Your task to perform on an android device: Go to internet settings Image 0: 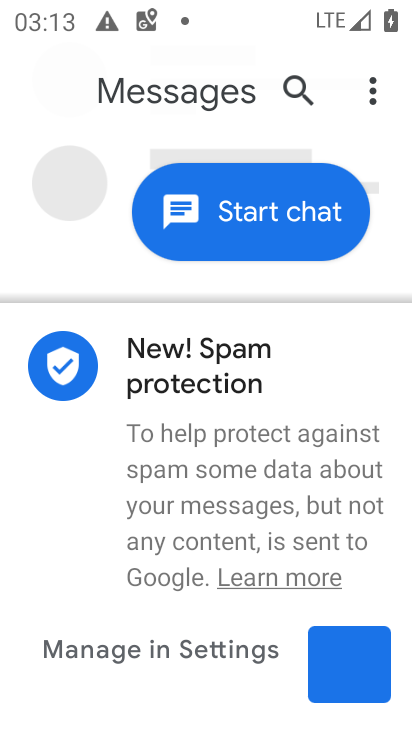
Step 0: press home button
Your task to perform on an android device: Go to internet settings Image 1: 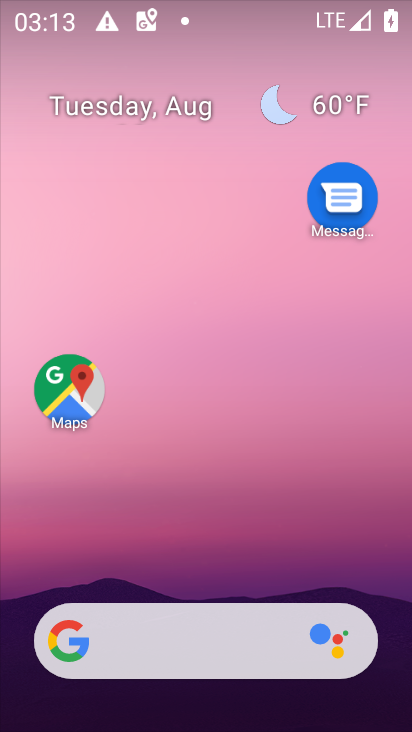
Step 1: drag from (221, 592) to (227, 6)
Your task to perform on an android device: Go to internet settings Image 2: 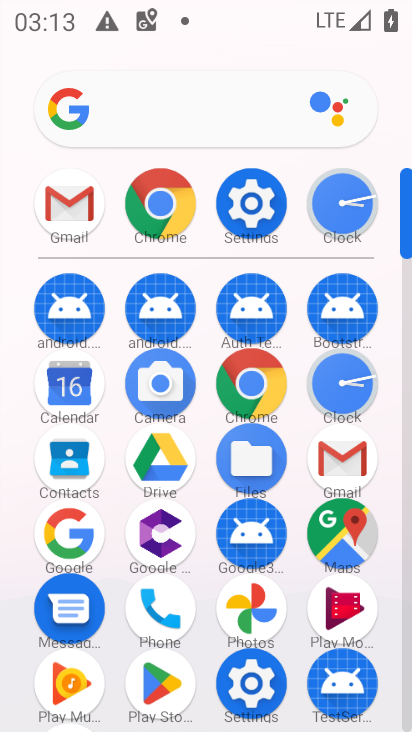
Step 2: click (253, 173)
Your task to perform on an android device: Go to internet settings Image 3: 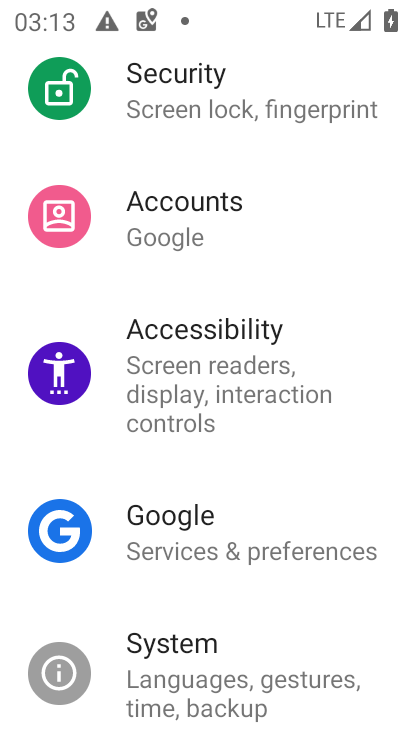
Step 3: drag from (209, 172) to (221, 679)
Your task to perform on an android device: Go to internet settings Image 4: 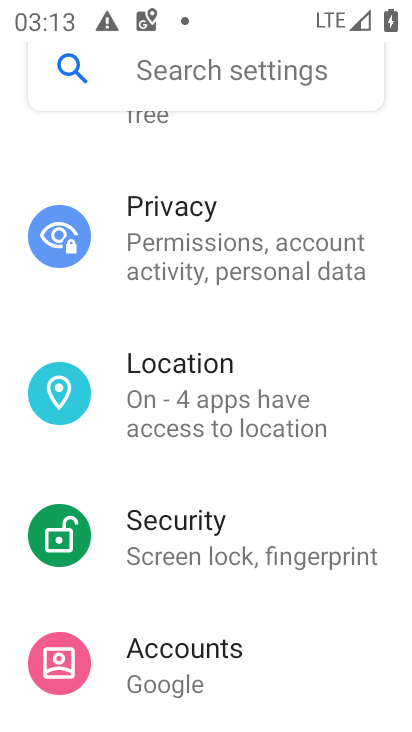
Step 4: drag from (171, 261) to (200, 690)
Your task to perform on an android device: Go to internet settings Image 5: 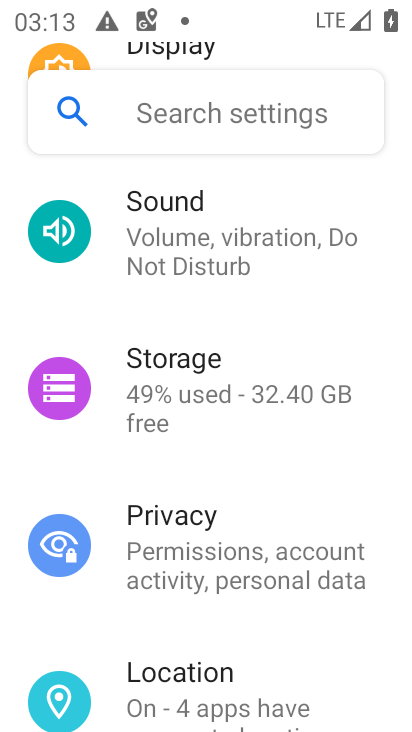
Step 5: drag from (140, 277) to (181, 620)
Your task to perform on an android device: Go to internet settings Image 6: 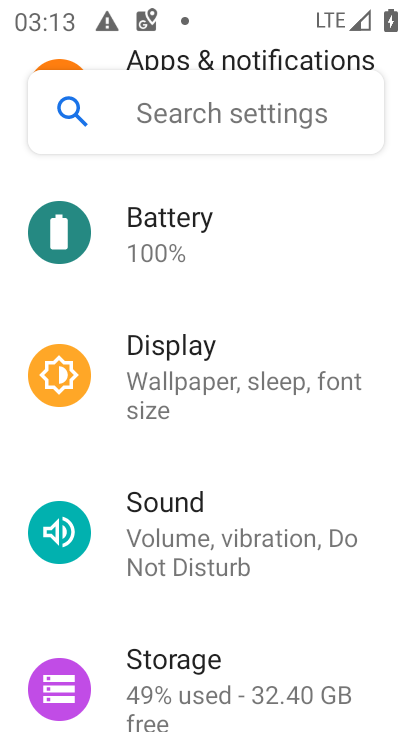
Step 6: drag from (145, 227) to (188, 599)
Your task to perform on an android device: Go to internet settings Image 7: 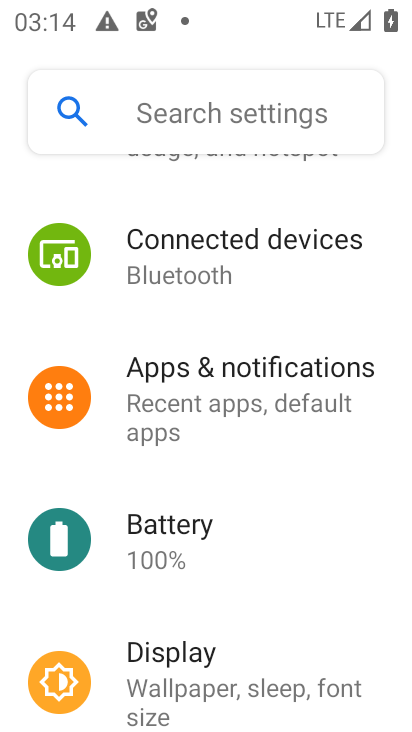
Step 7: click (155, 164)
Your task to perform on an android device: Go to internet settings Image 8: 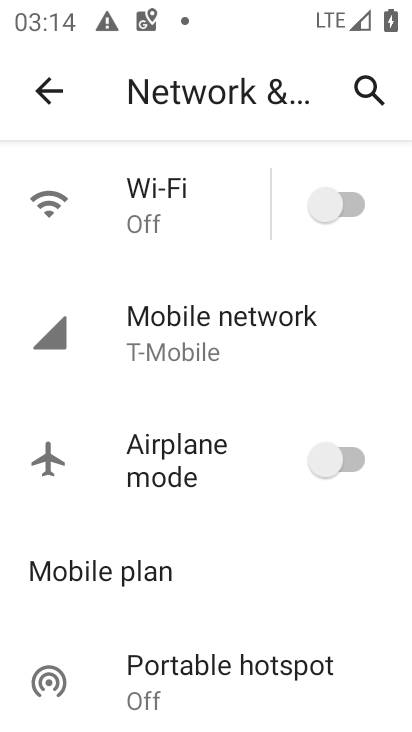
Step 8: task complete